Your task to perform on an android device: What's the weather? Image 0: 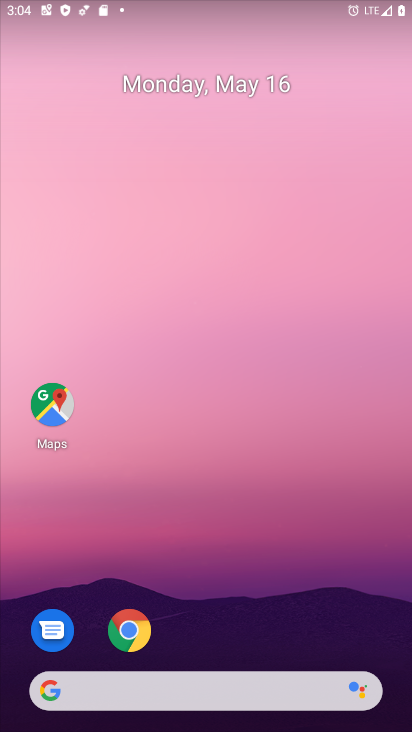
Step 0: click (393, 249)
Your task to perform on an android device: What's the weather? Image 1: 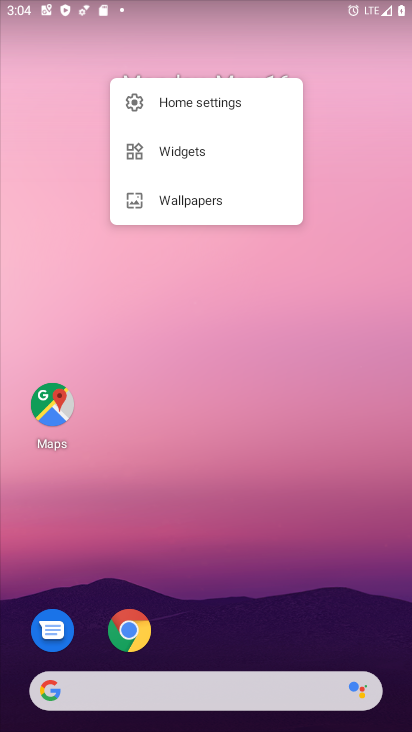
Step 1: drag from (367, 326) to (411, 298)
Your task to perform on an android device: What's the weather? Image 2: 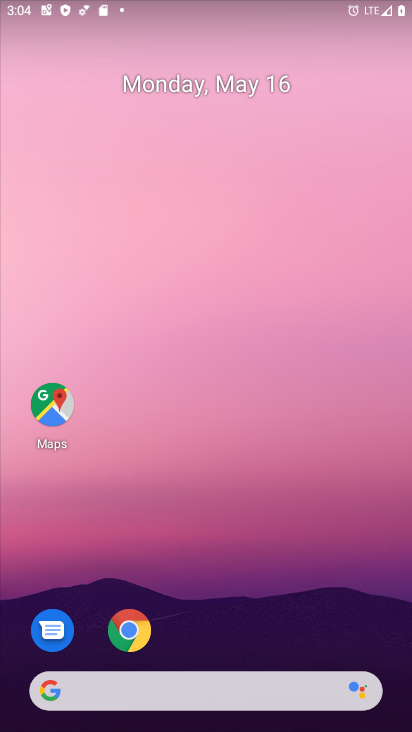
Step 2: drag from (354, 288) to (404, 287)
Your task to perform on an android device: What's the weather? Image 3: 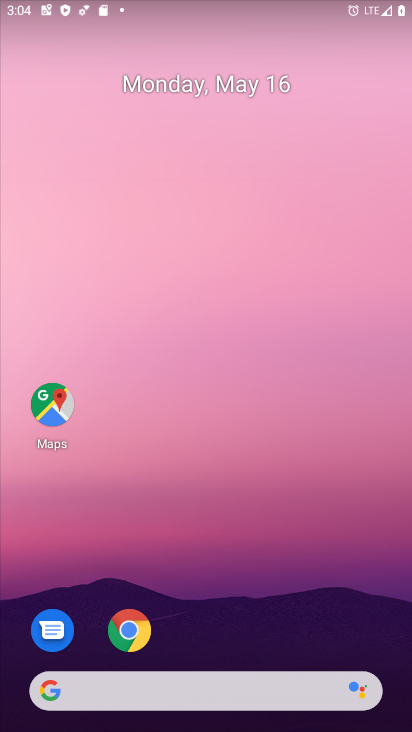
Step 3: drag from (11, 298) to (405, 327)
Your task to perform on an android device: What's the weather? Image 4: 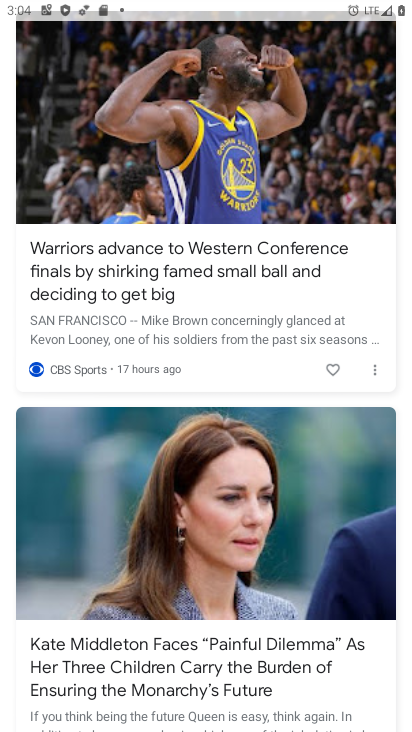
Step 4: drag from (220, 129) to (267, 648)
Your task to perform on an android device: What's the weather? Image 5: 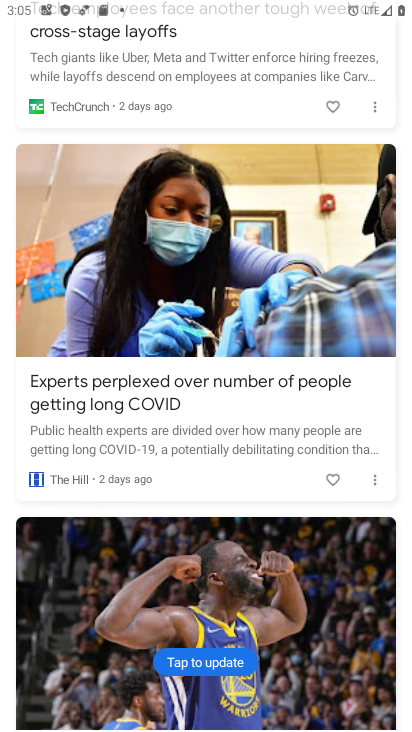
Step 5: drag from (299, 159) to (320, 616)
Your task to perform on an android device: What's the weather? Image 6: 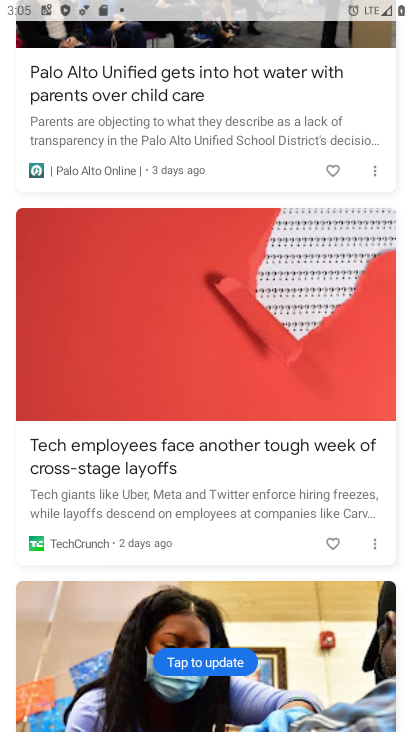
Step 6: drag from (255, 308) to (283, 729)
Your task to perform on an android device: What's the weather? Image 7: 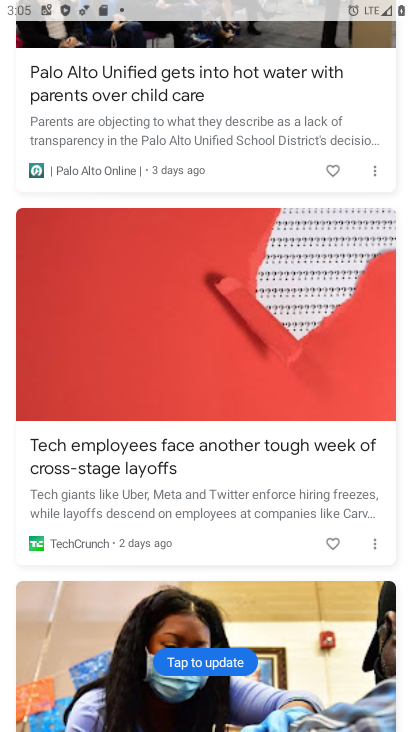
Step 7: drag from (265, 86) to (285, 525)
Your task to perform on an android device: What's the weather? Image 8: 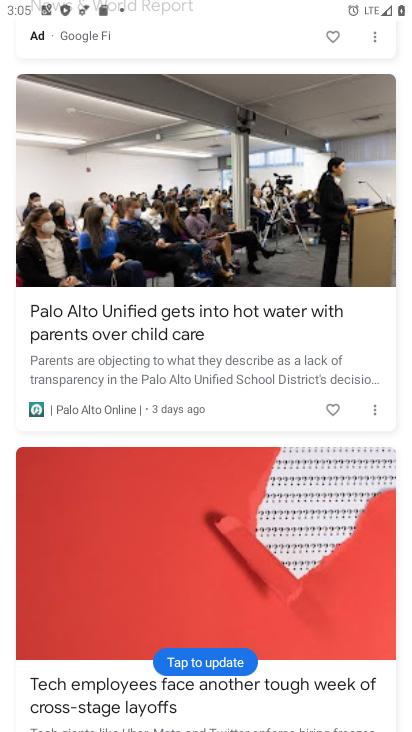
Step 8: drag from (231, 132) to (315, 658)
Your task to perform on an android device: What's the weather? Image 9: 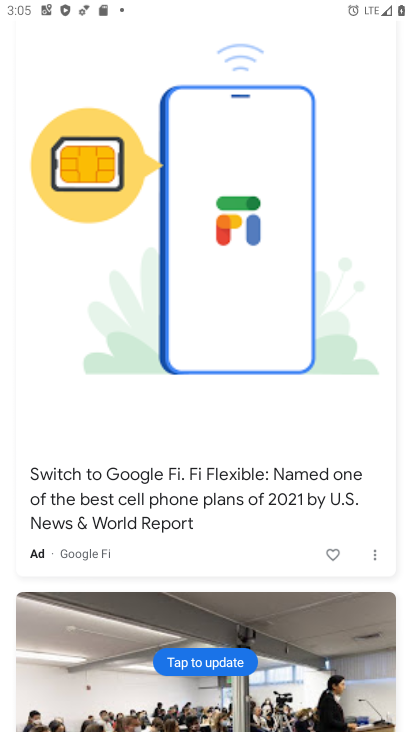
Step 9: drag from (254, 462) to (266, 698)
Your task to perform on an android device: What's the weather? Image 10: 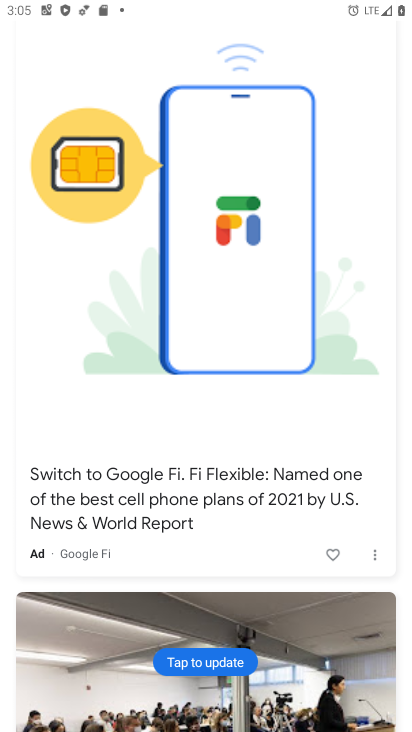
Step 10: drag from (189, 127) to (359, 720)
Your task to perform on an android device: What's the weather? Image 11: 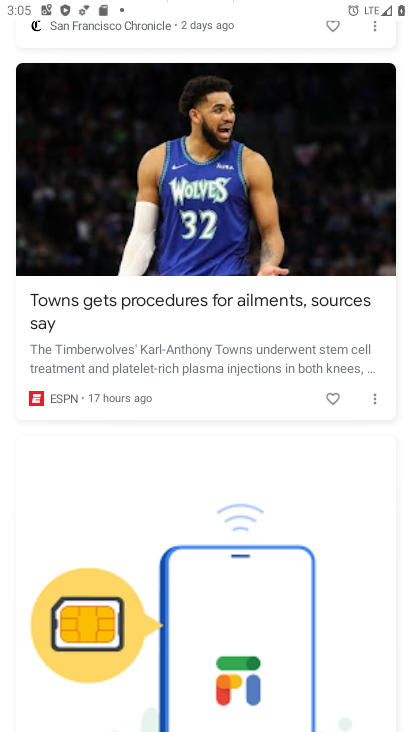
Step 11: drag from (221, 119) to (223, 728)
Your task to perform on an android device: What's the weather? Image 12: 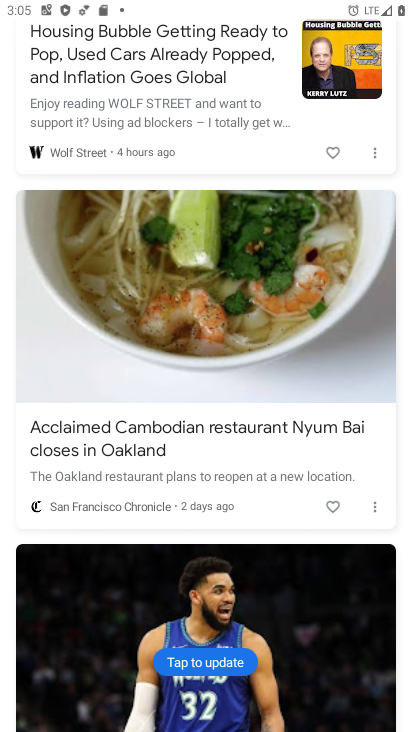
Step 12: drag from (227, 84) to (216, 712)
Your task to perform on an android device: What's the weather? Image 13: 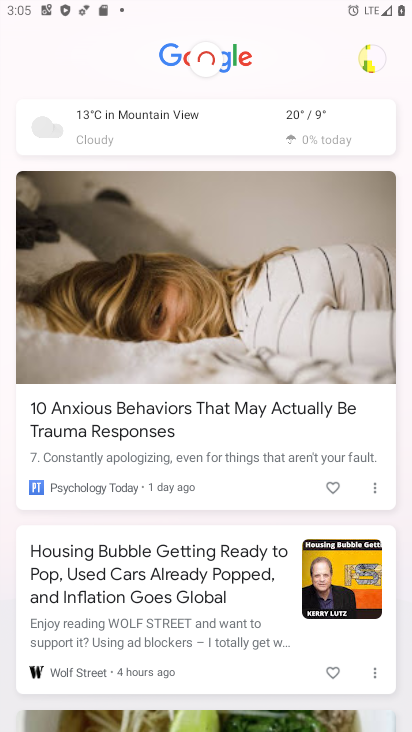
Step 13: click (288, 125)
Your task to perform on an android device: What's the weather? Image 14: 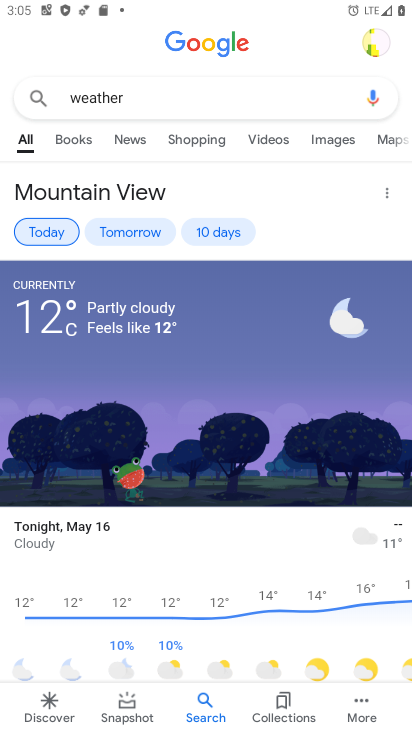
Step 14: task complete